Your task to perform on an android device: Check the weather Image 0: 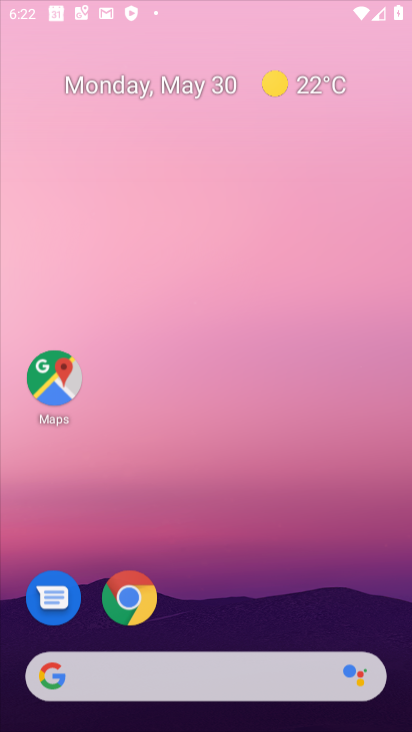
Step 0: press home button
Your task to perform on an android device: Check the weather Image 1: 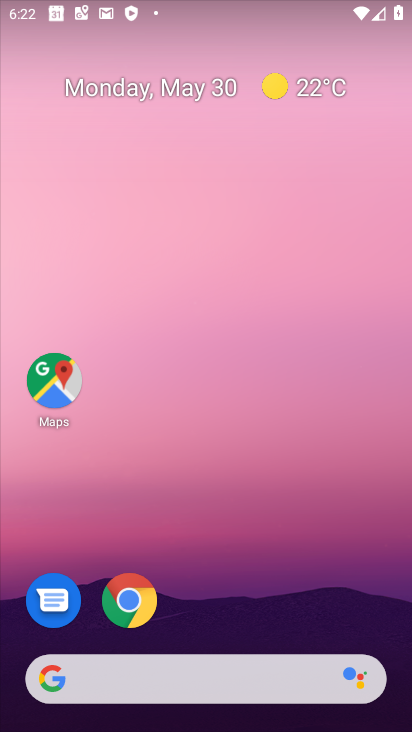
Step 1: click (53, 681)
Your task to perform on an android device: Check the weather Image 2: 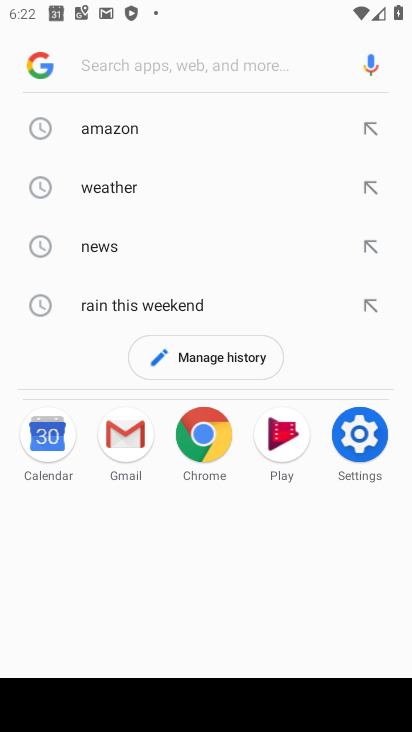
Step 2: click (118, 190)
Your task to perform on an android device: Check the weather Image 3: 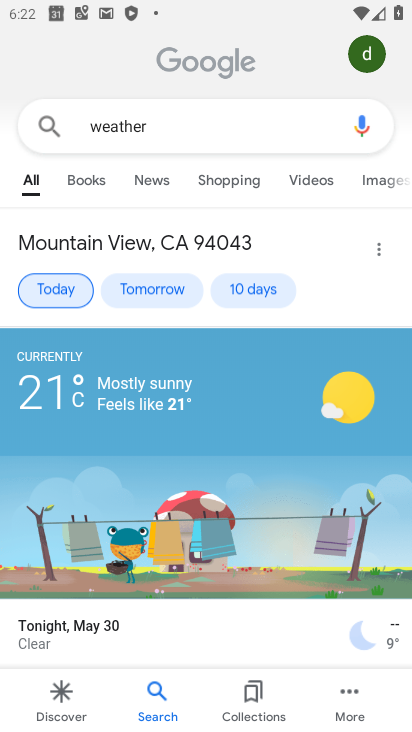
Step 3: task complete